Your task to perform on an android device: search for starred emails in the gmail app Image 0: 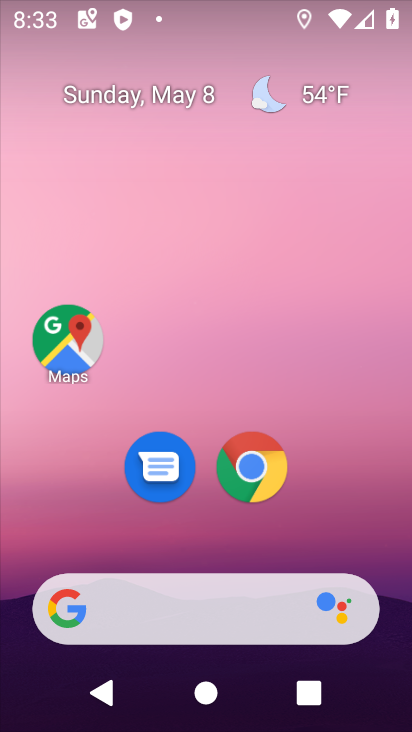
Step 0: drag from (402, 634) to (316, 111)
Your task to perform on an android device: search for starred emails in the gmail app Image 1: 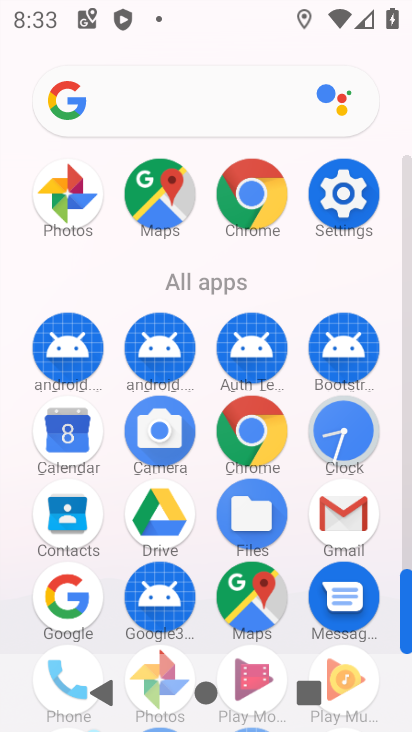
Step 1: click (405, 550)
Your task to perform on an android device: search for starred emails in the gmail app Image 2: 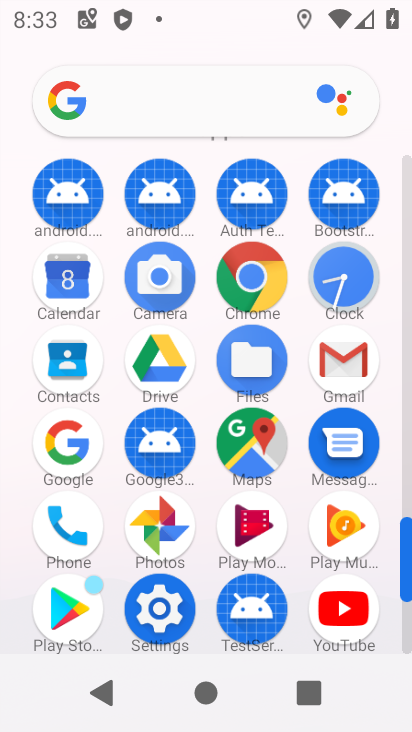
Step 2: click (341, 358)
Your task to perform on an android device: search for starred emails in the gmail app Image 3: 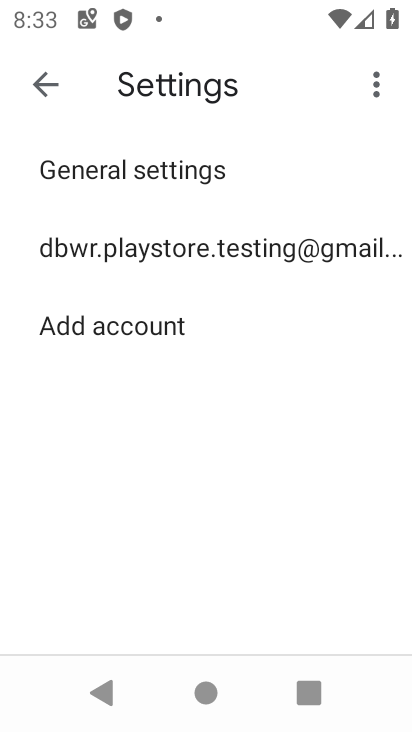
Step 3: press back button
Your task to perform on an android device: search for starred emails in the gmail app Image 4: 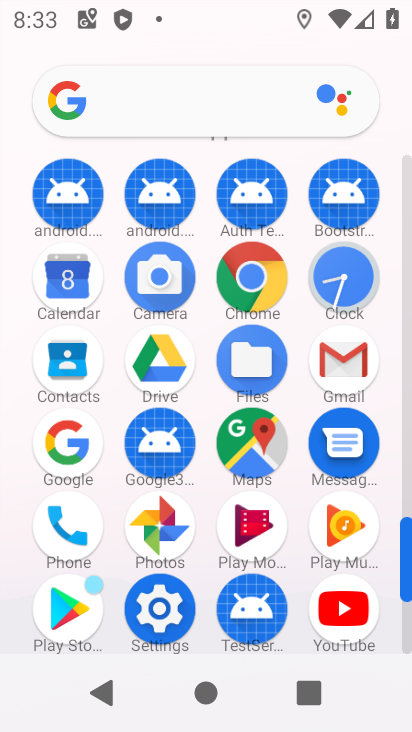
Step 4: click (342, 366)
Your task to perform on an android device: search for starred emails in the gmail app Image 5: 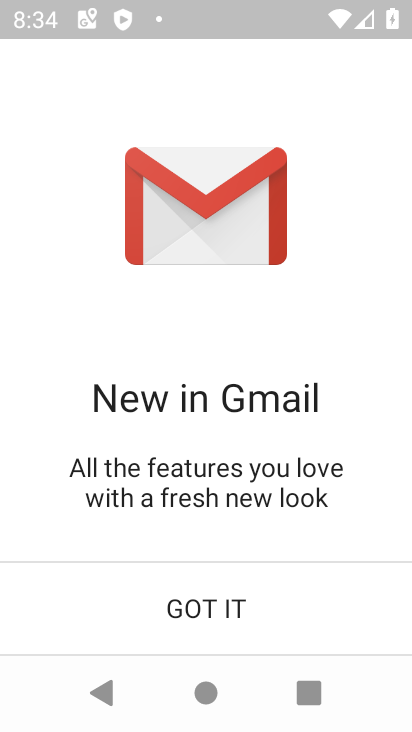
Step 5: click (169, 621)
Your task to perform on an android device: search for starred emails in the gmail app Image 6: 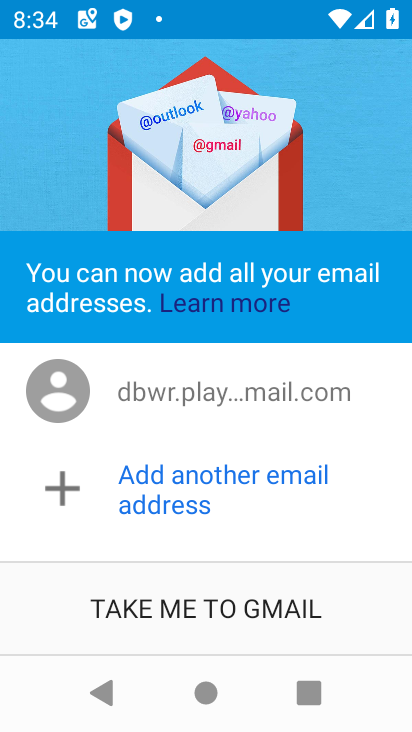
Step 6: click (154, 599)
Your task to perform on an android device: search for starred emails in the gmail app Image 7: 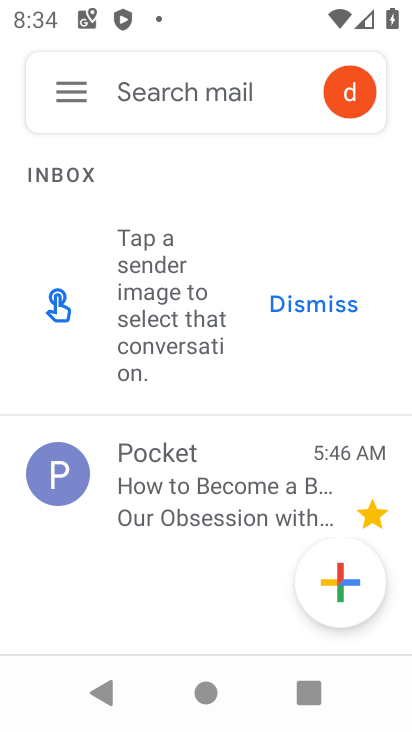
Step 7: click (78, 94)
Your task to perform on an android device: search for starred emails in the gmail app Image 8: 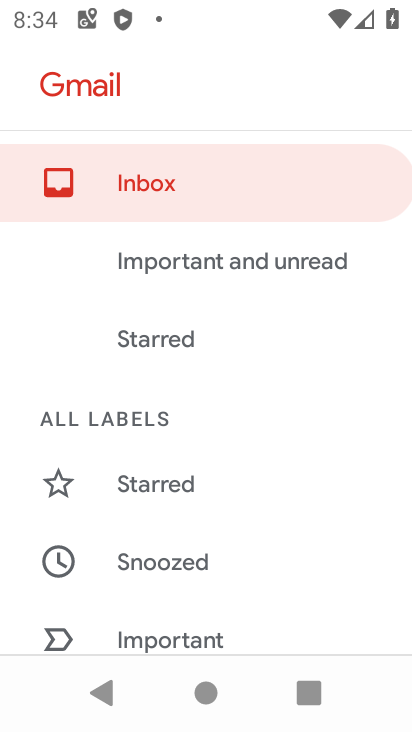
Step 8: click (160, 336)
Your task to perform on an android device: search for starred emails in the gmail app Image 9: 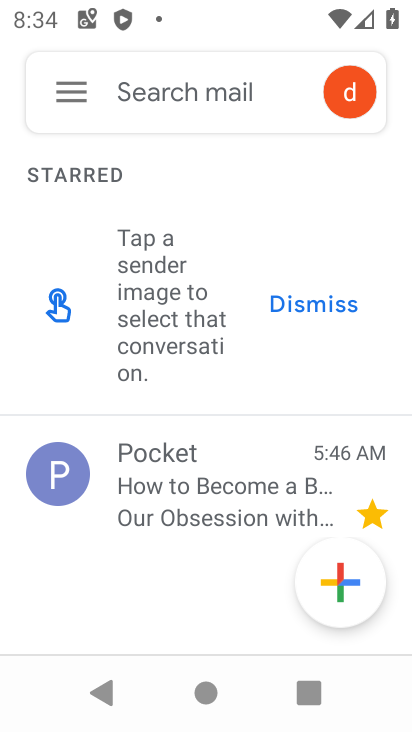
Step 9: task complete